Your task to perform on an android device: turn notification dots on Image 0: 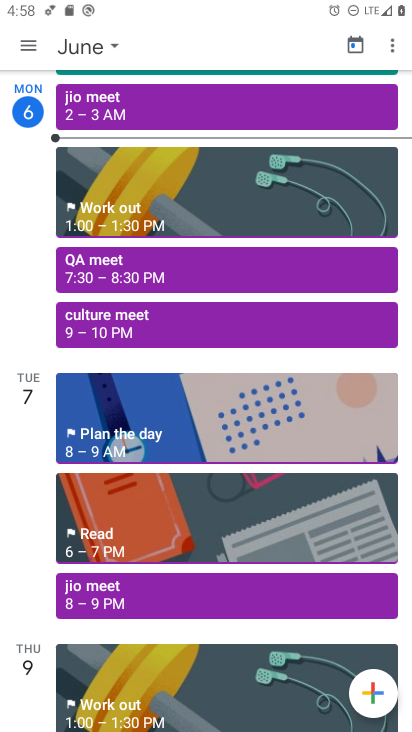
Step 0: press home button
Your task to perform on an android device: turn notification dots on Image 1: 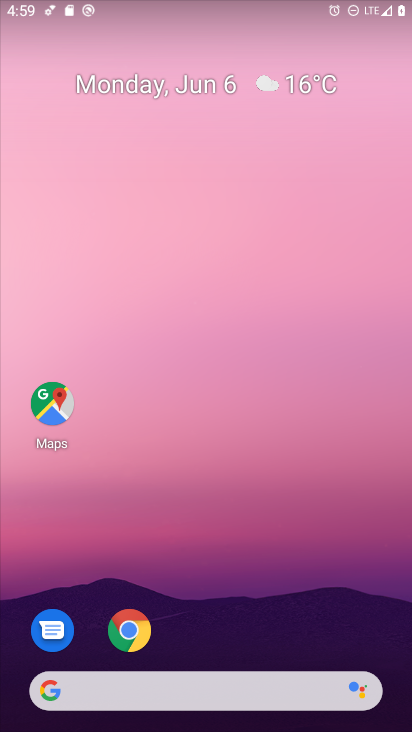
Step 1: drag from (333, 557) to (163, 39)
Your task to perform on an android device: turn notification dots on Image 2: 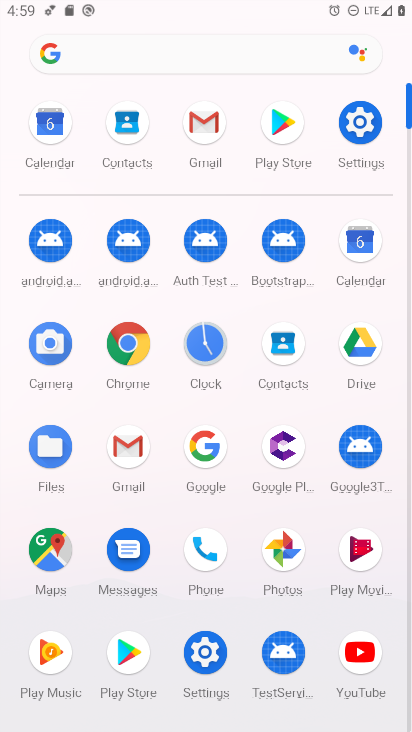
Step 2: click (373, 127)
Your task to perform on an android device: turn notification dots on Image 3: 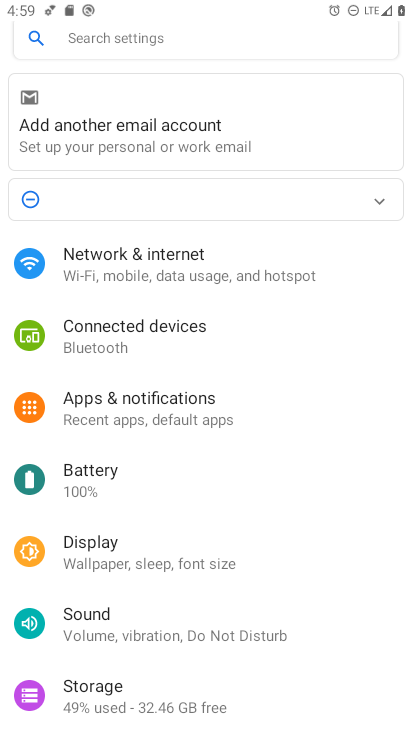
Step 3: drag from (197, 618) to (187, 342)
Your task to perform on an android device: turn notification dots on Image 4: 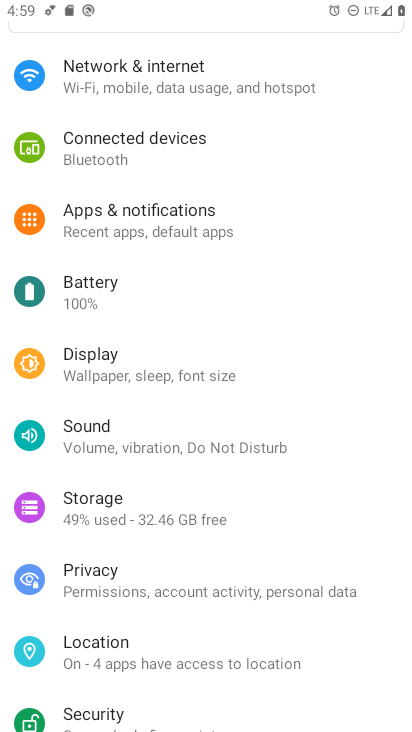
Step 4: click (152, 220)
Your task to perform on an android device: turn notification dots on Image 5: 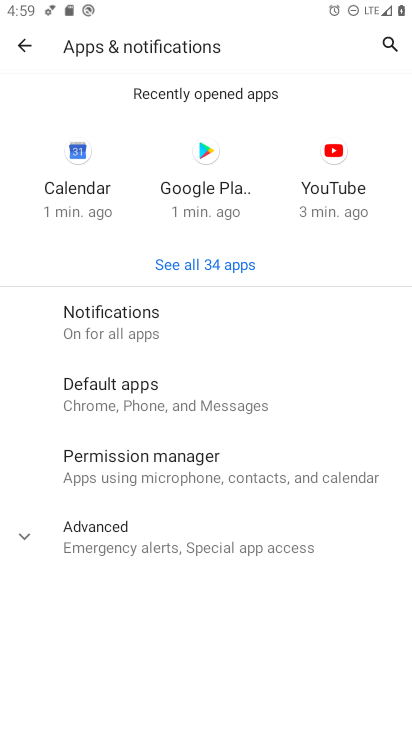
Step 5: click (176, 314)
Your task to perform on an android device: turn notification dots on Image 6: 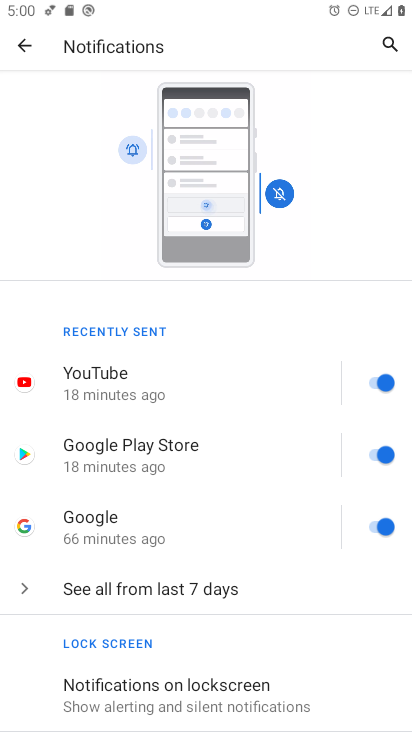
Step 6: drag from (223, 607) to (193, 215)
Your task to perform on an android device: turn notification dots on Image 7: 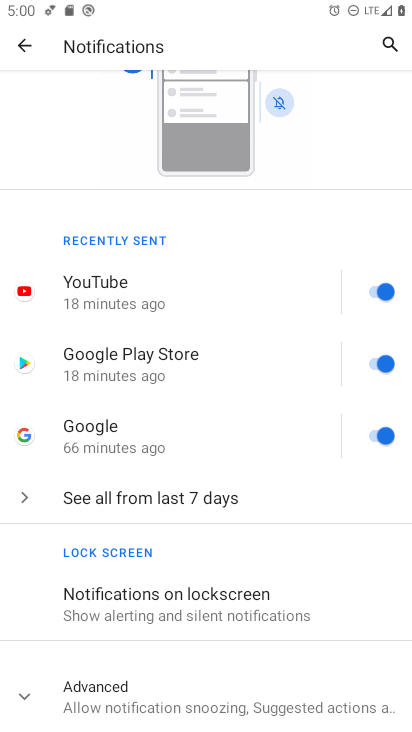
Step 7: click (193, 688)
Your task to perform on an android device: turn notification dots on Image 8: 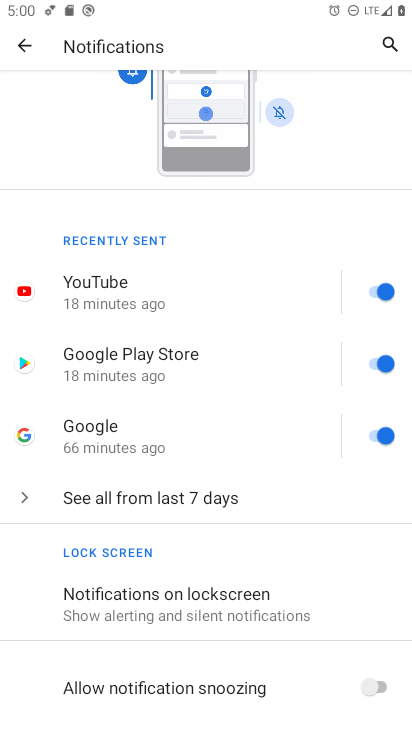
Step 8: task complete